Your task to perform on an android device: delete the emails in spam in the gmail app Image 0: 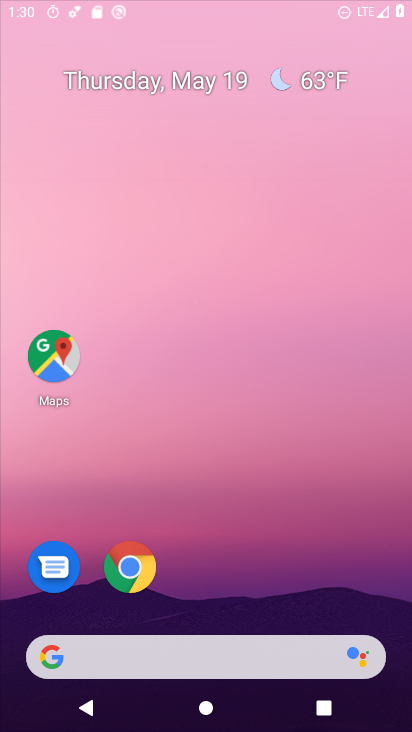
Step 0: press home button
Your task to perform on an android device: delete the emails in spam in the gmail app Image 1: 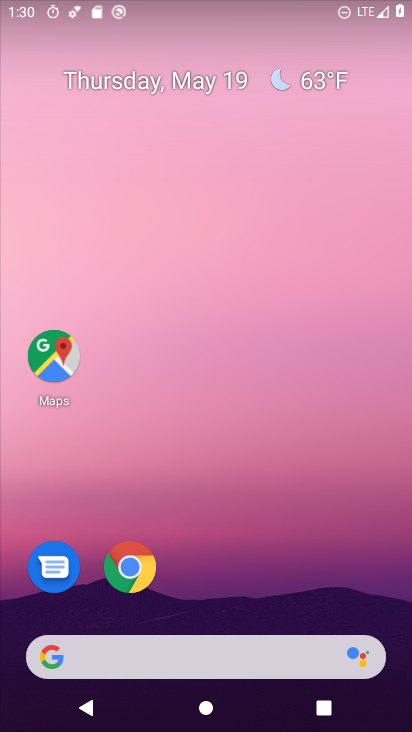
Step 1: drag from (154, 651) to (342, 107)
Your task to perform on an android device: delete the emails in spam in the gmail app Image 2: 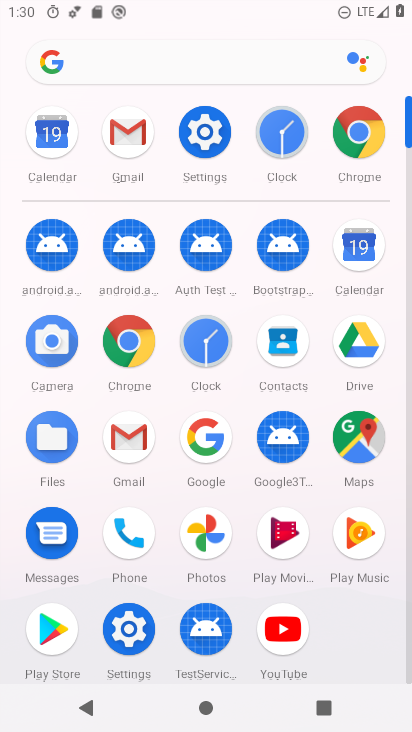
Step 2: click (127, 138)
Your task to perform on an android device: delete the emails in spam in the gmail app Image 3: 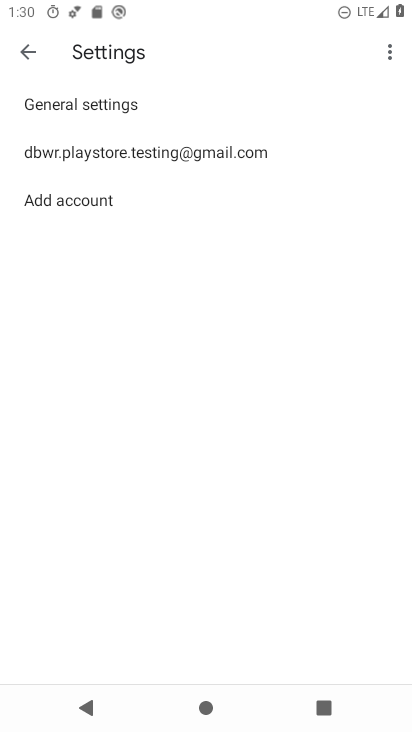
Step 3: click (30, 52)
Your task to perform on an android device: delete the emails in spam in the gmail app Image 4: 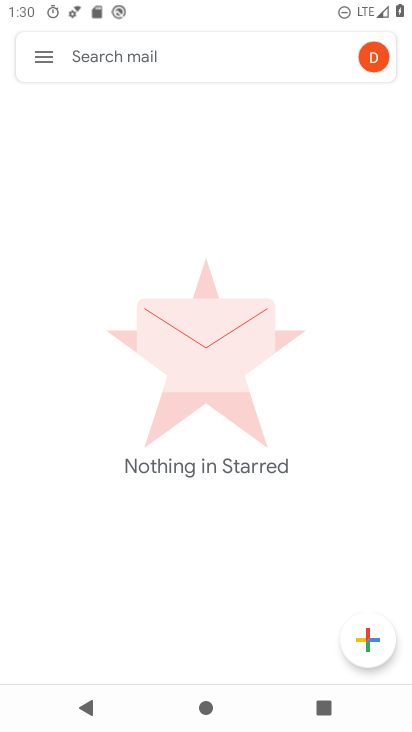
Step 4: click (41, 57)
Your task to perform on an android device: delete the emails in spam in the gmail app Image 5: 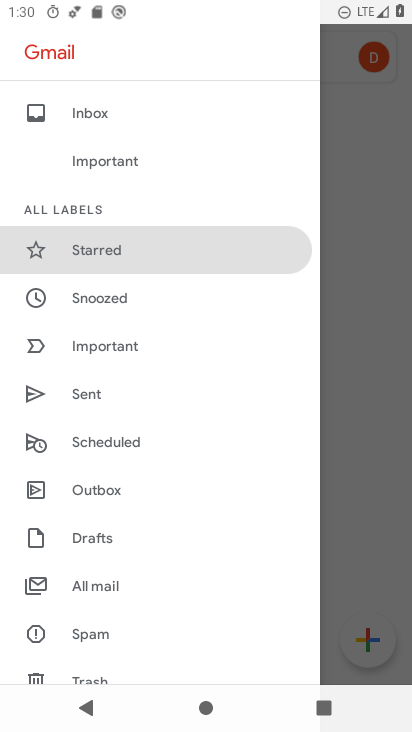
Step 5: click (111, 635)
Your task to perform on an android device: delete the emails in spam in the gmail app Image 6: 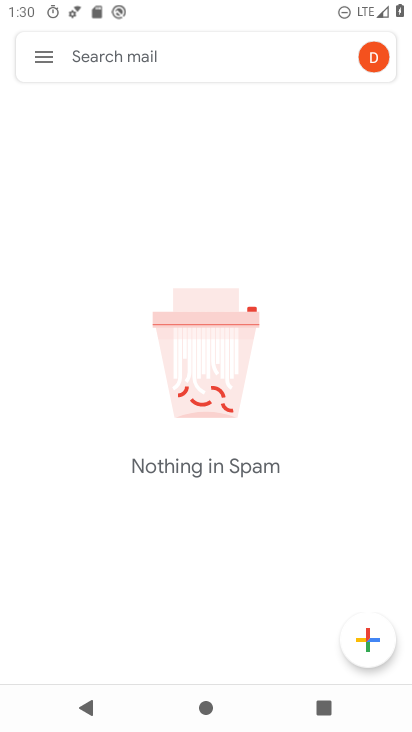
Step 6: task complete